Your task to perform on an android device: allow notifications from all sites in the chrome app Image 0: 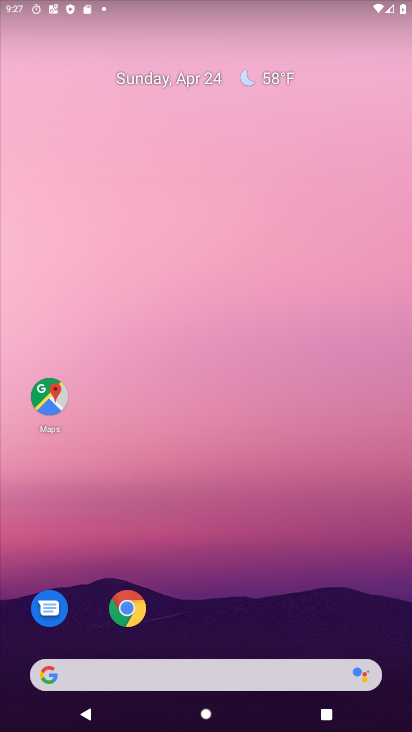
Step 0: drag from (352, 630) to (329, 83)
Your task to perform on an android device: allow notifications from all sites in the chrome app Image 1: 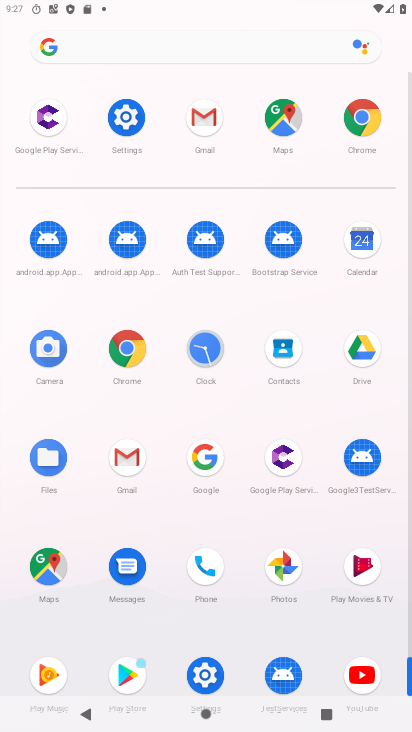
Step 1: click (348, 112)
Your task to perform on an android device: allow notifications from all sites in the chrome app Image 2: 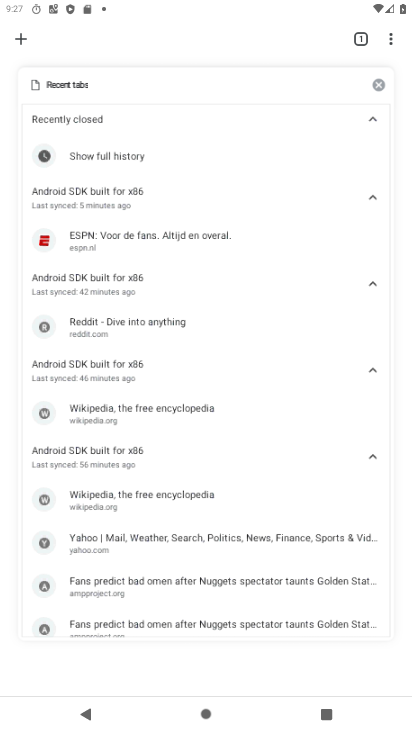
Step 2: click (394, 42)
Your task to perform on an android device: allow notifications from all sites in the chrome app Image 3: 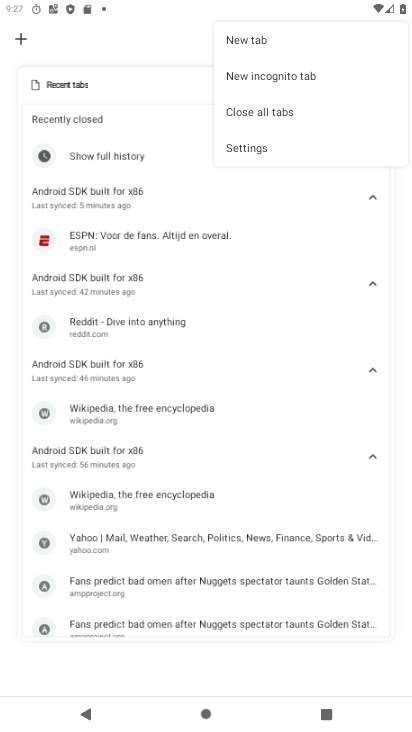
Step 3: click (328, 139)
Your task to perform on an android device: allow notifications from all sites in the chrome app Image 4: 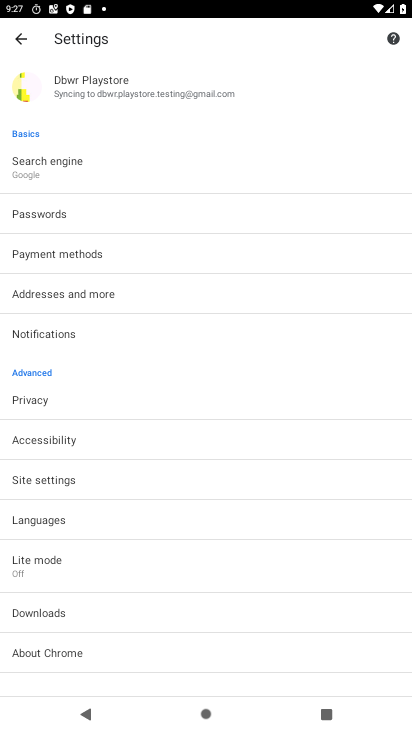
Step 4: drag from (306, 484) to (308, 383)
Your task to perform on an android device: allow notifications from all sites in the chrome app Image 5: 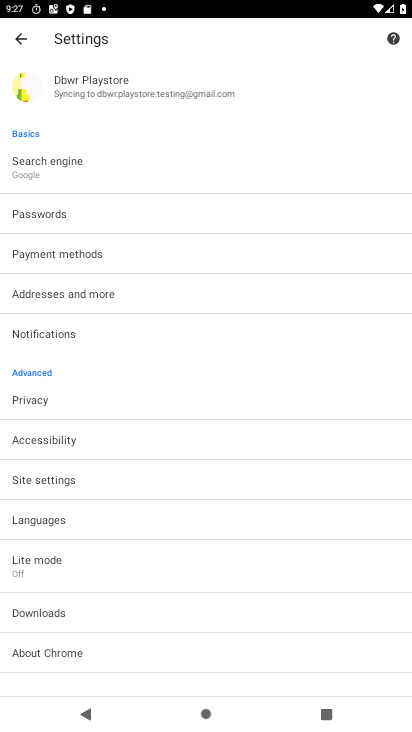
Step 5: drag from (318, 537) to (312, 359)
Your task to perform on an android device: allow notifications from all sites in the chrome app Image 6: 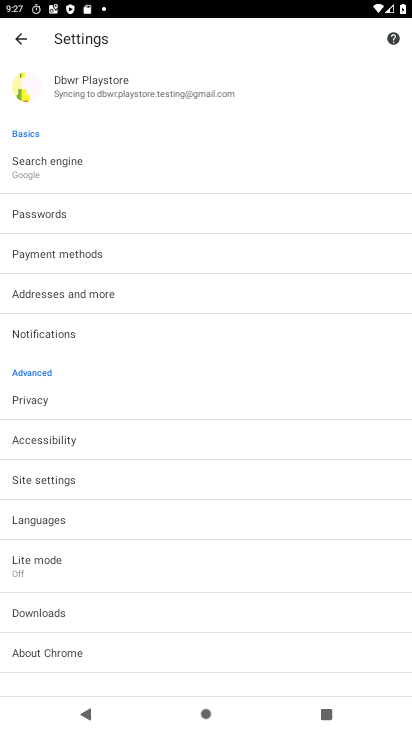
Step 6: drag from (292, 253) to (296, 423)
Your task to perform on an android device: allow notifications from all sites in the chrome app Image 7: 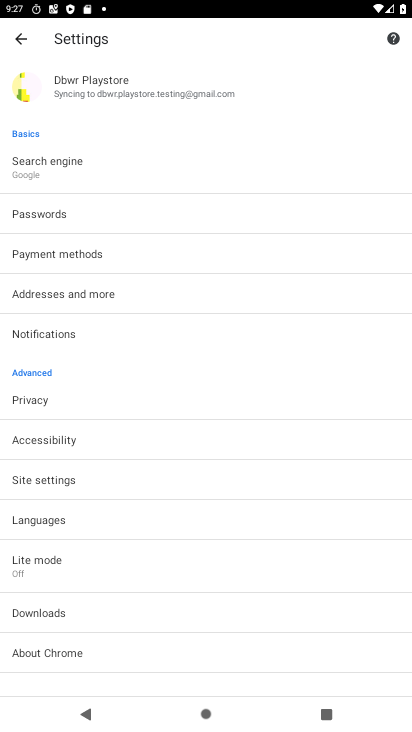
Step 7: click (254, 484)
Your task to perform on an android device: allow notifications from all sites in the chrome app Image 8: 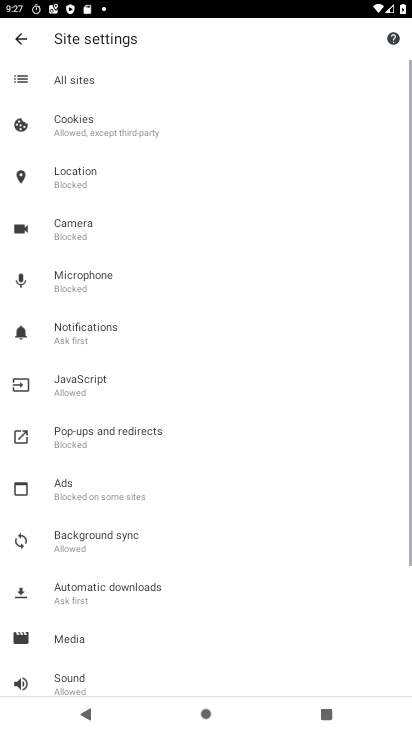
Step 8: drag from (276, 552) to (273, 430)
Your task to perform on an android device: allow notifications from all sites in the chrome app Image 9: 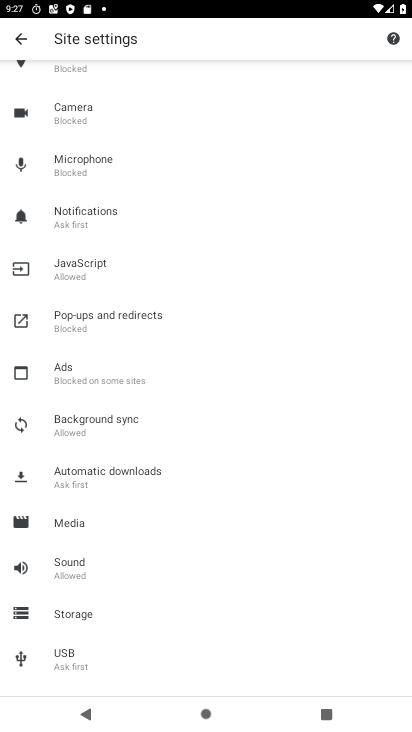
Step 9: drag from (296, 586) to (300, 431)
Your task to perform on an android device: allow notifications from all sites in the chrome app Image 10: 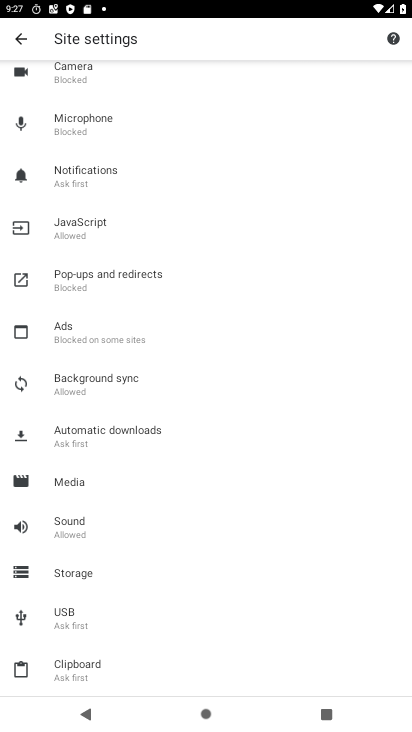
Step 10: drag from (303, 294) to (312, 420)
Your task to perform on an android device: allow notifications from all sites in the chrome app Image 11: 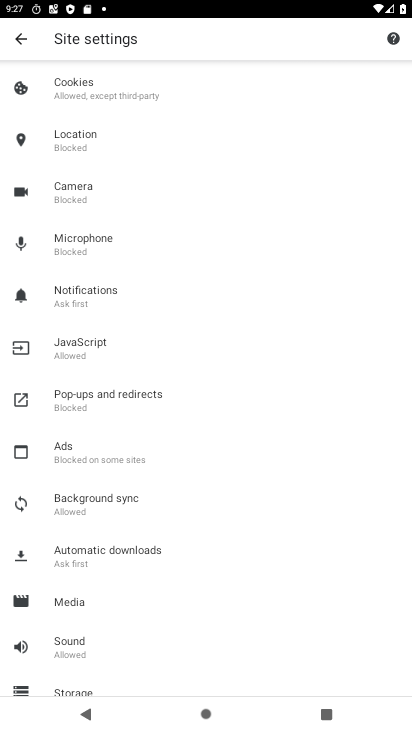
Step 11: drag from (304, 258) to (305, 397)
Your task to perform on an android device: allow notifications from all sites in the chrome app Image 12: 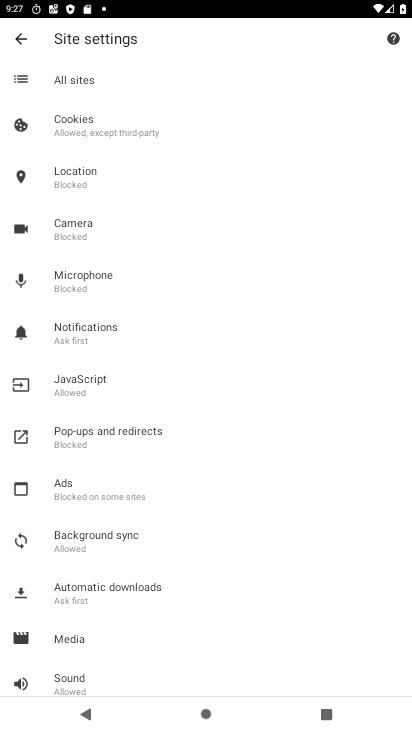
Step 12: drag from (299, 264) to (299, 390)
Your task to perform on an android device: allow notifications from all sites in the chrome app Image 13: 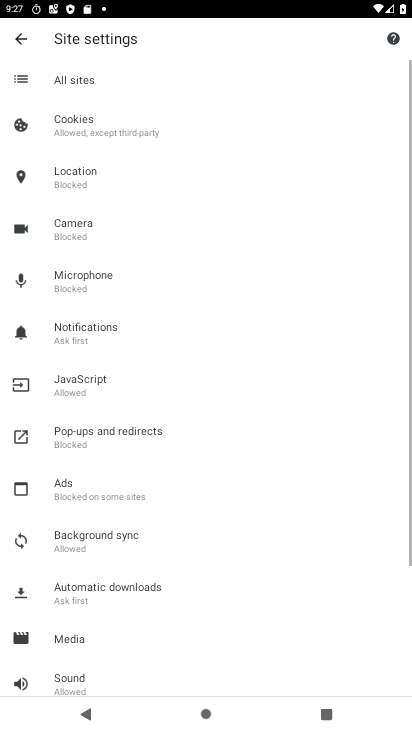
Step 13: click (130, 333)
Your task to perform on an android device: allow notifications from all sites in the chrome app Image 14: 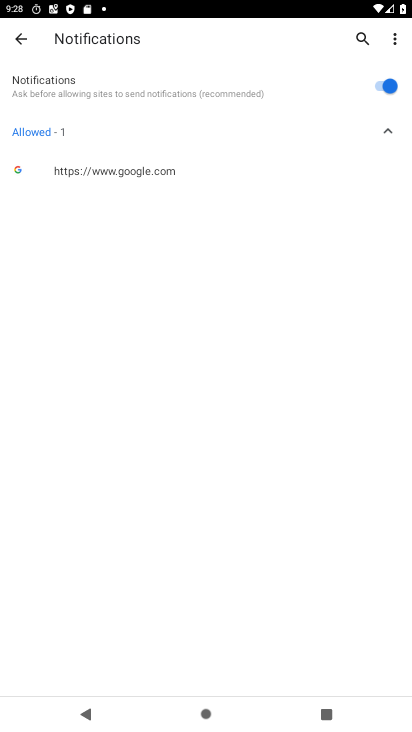
Step 14: task complete